Your task to perform on an android device: turn off airplane mode Image 0: 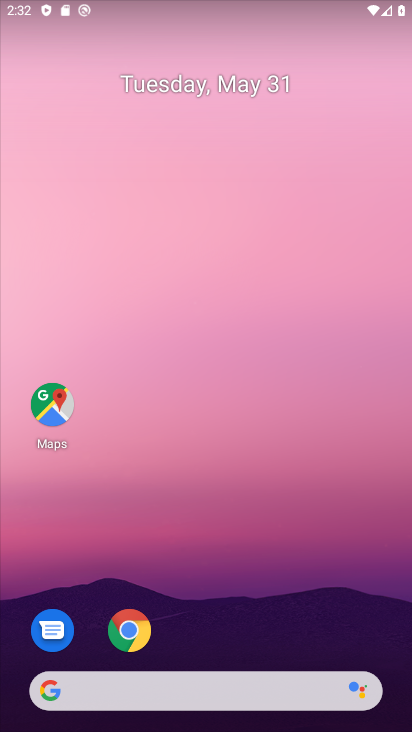
Step 0: drag from (272, 636) to (272, 593)
Your task to perform on an android device: turn off airplane mode Image 1: 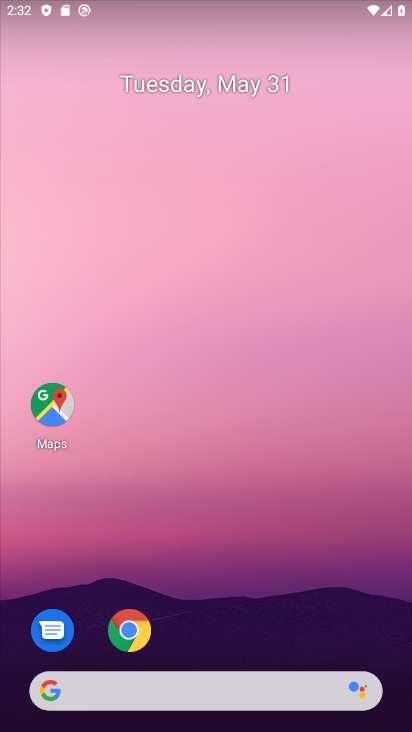
Step 1: task complete